Your task to perform on an android device: open chrome privacy settings Image 0: 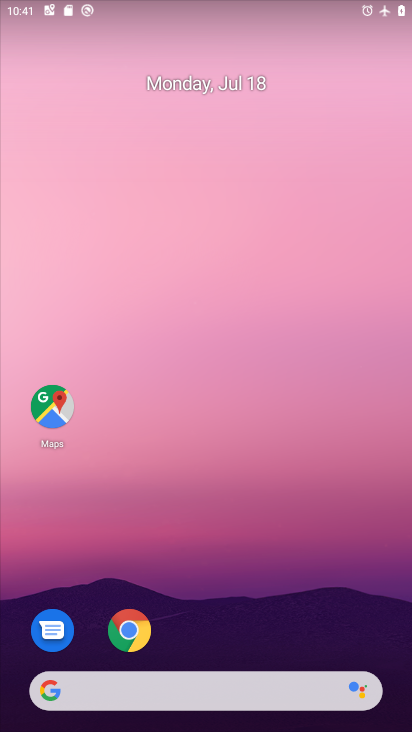
Step 0: click (224, 582)
Your task to perform on an android device: open chrome privacy settings Image 1: 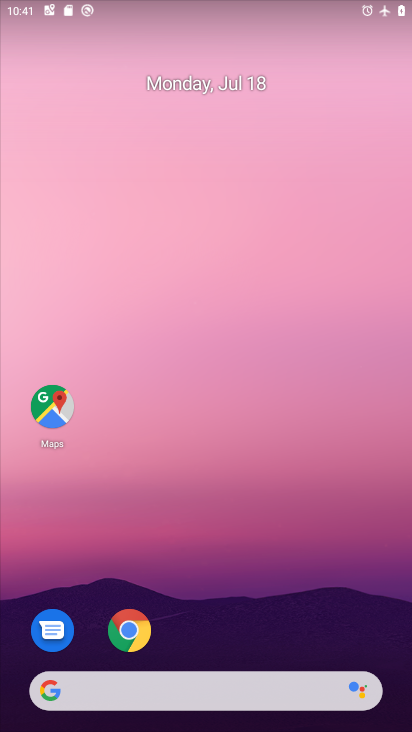
Step 1: click (135, 627)
Your task to perform on an android device: open chrome privacy settings Image 2: 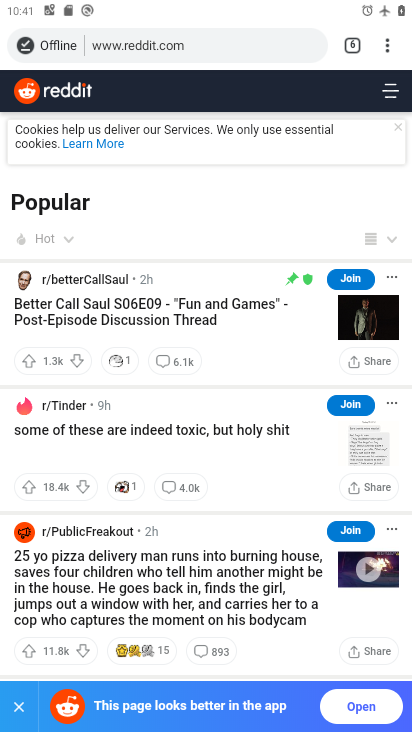
Step 2: click (380, 47)
Your task to perform on an android device: open chrome privacy settings Image 3: 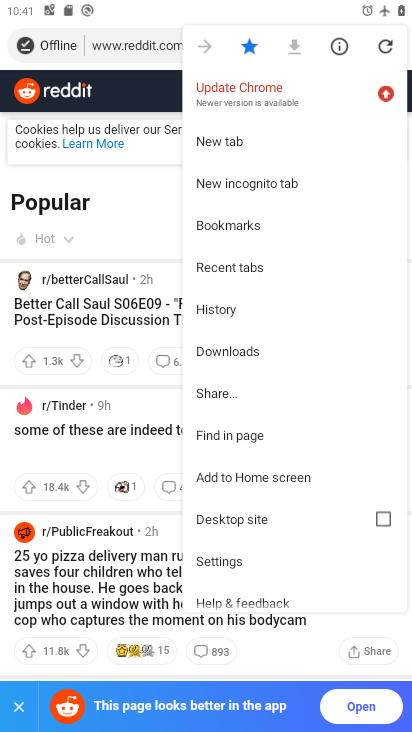
Step 3: click (248, 557)
Your task to perform on an android device: open chrome privacy settings Image 4: 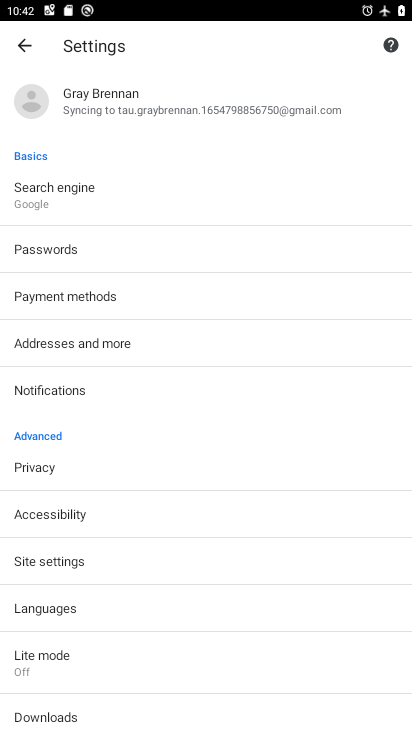
Step 4: click (102, 463)
Your task to perform on an android device: open chrome privacy settings Image 5: 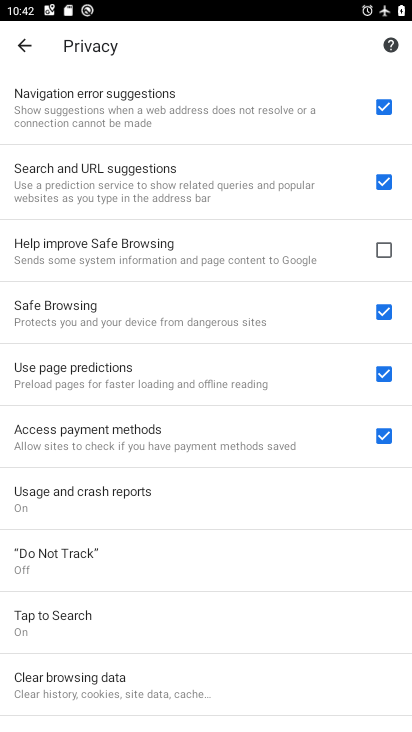
Step 5: task complete